Your task to perform on an android device: Set the phone to "Do not disturb". Image 0: 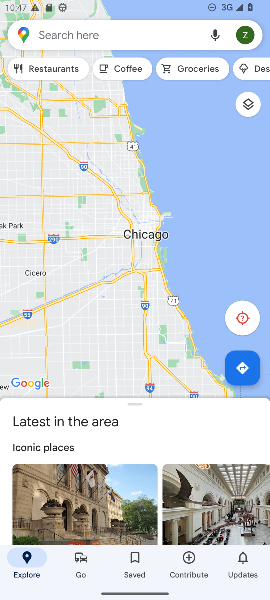
Step 0: press home button
Your task to perform on an android device: Set the phone to "Do not disturb". Image 1: 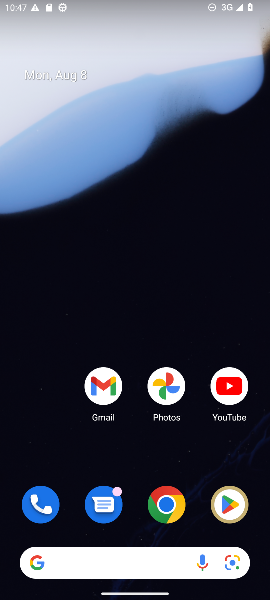
Step 1: drag from (121, 433) to (179, 10)
Your task to perform on an android device: Set the phone to "Do not disturb". Image 2: 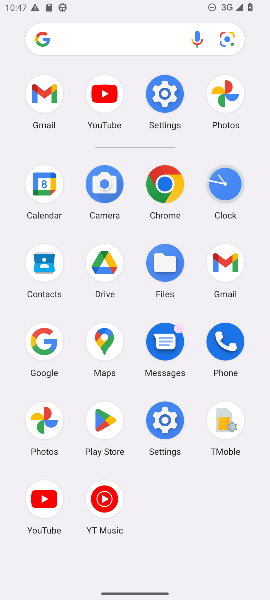
Step 2: click (162, 422)
Your task to perform on an android device: Set the phone to "Do not disturb". Image 3: 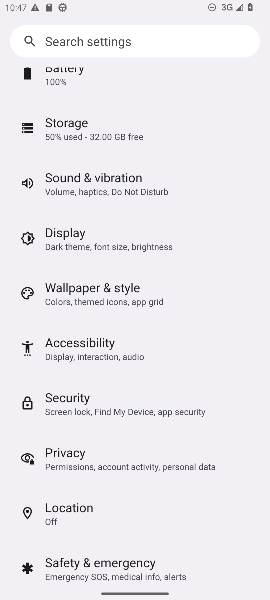
Step 3: drag from (105, 175) to (110, 486)
Your task to perform on an android device: Set the phone to "Do not disturb". Image 4: 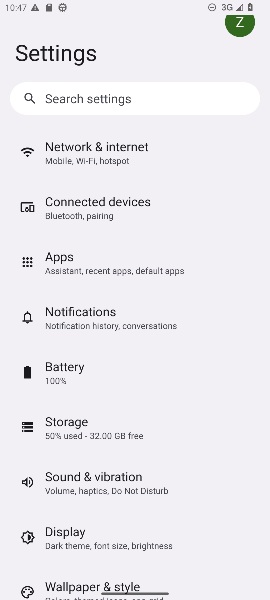
Step 4: click (95, 482)
Your task to perform on an android device: Set the phone to "Do not disturb". Image 5: 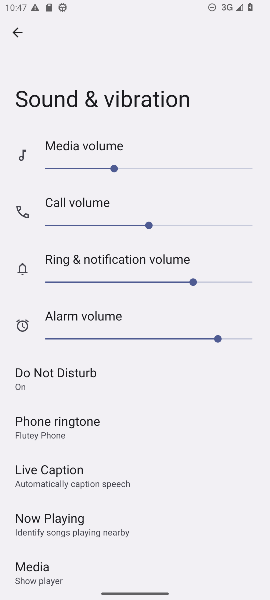
Step 5: click (71, 381)
Your task to perform on an android device: Set the phone to "Do not disturb". Image 6: 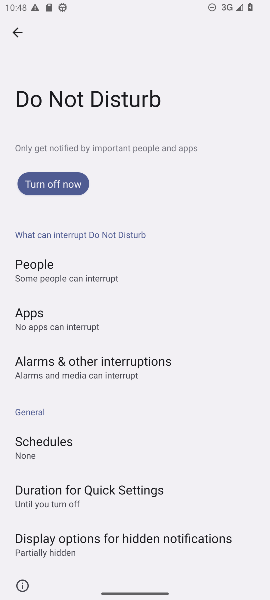
Step 6: task complete